Your task to perform on an android device: Go to notification settings Image 0: 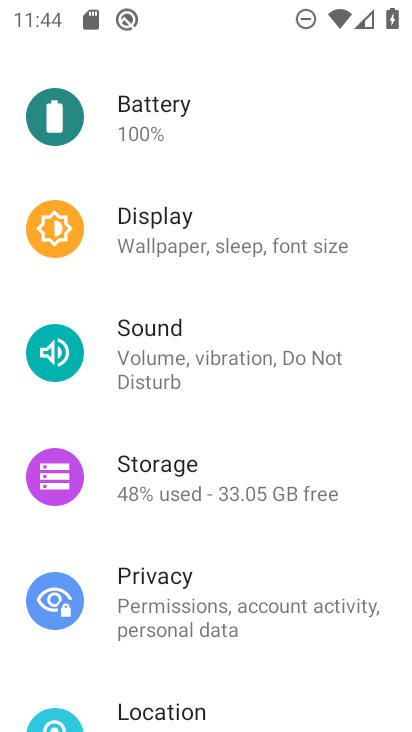
Step 0: press home button
Your task to perform on an android device: Go to notification settings Image 1: 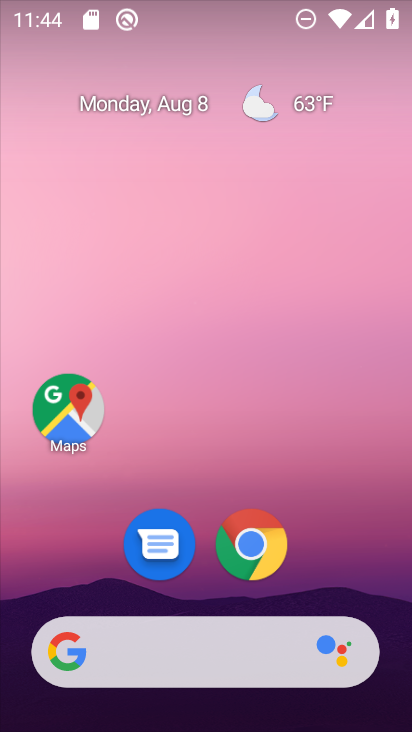
Step 1: drag from (182, 671) to (215, 79)
Your task to perform on an android device: Go to notification settings Image 2: 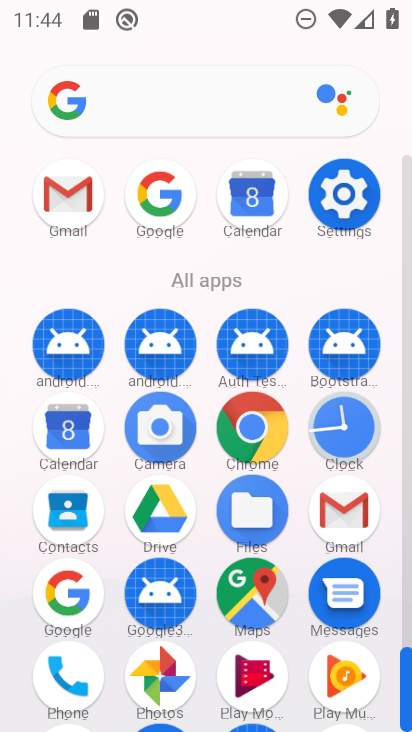
Step 2: click (337, 188)
Your task to perform on an android device: Go to notification settings Image 3: 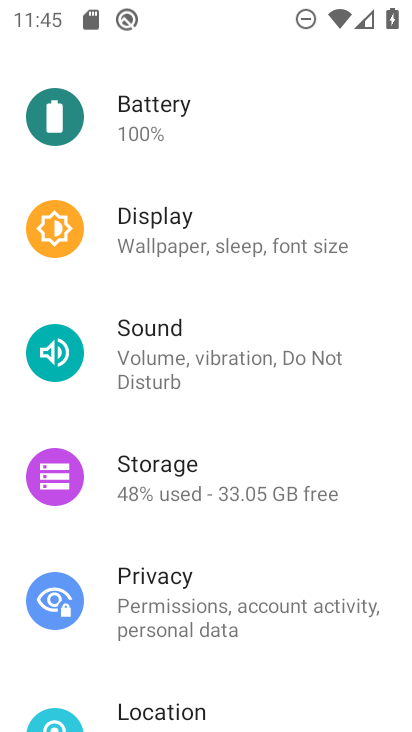
Step 3: drag from (320, 232) to (286, 530)
Your task to perform on an android device: Go to notification settings Image 4: 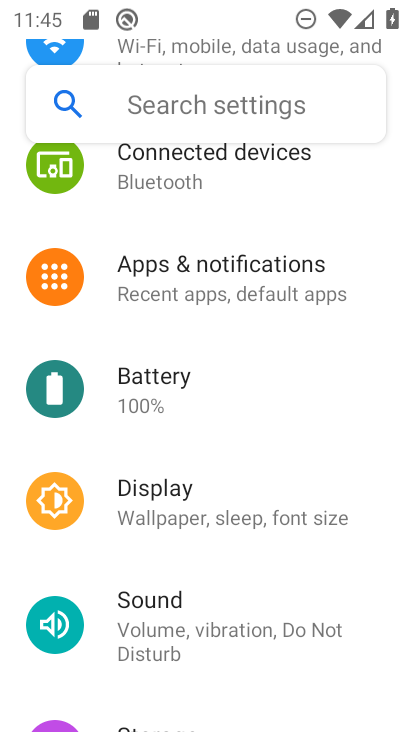
Step 4: click (235, 287)
Your task to perform on an android device: Go to notification settings Image 5: 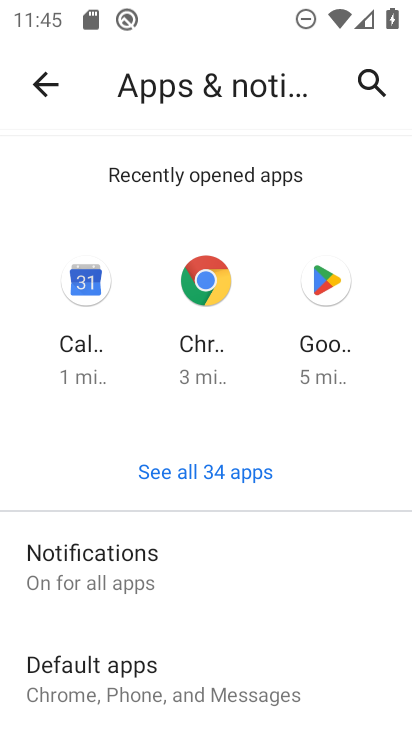
Step 5: click (121, 577)
Your task to perform on an android device: Go to notification settings Image 6: 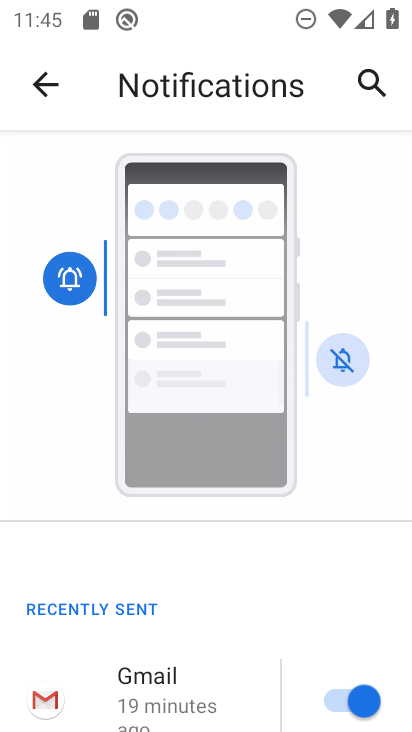
Step 6: task complete